Your task to perform on an android device: turn on translation in the chrome app Image 0: 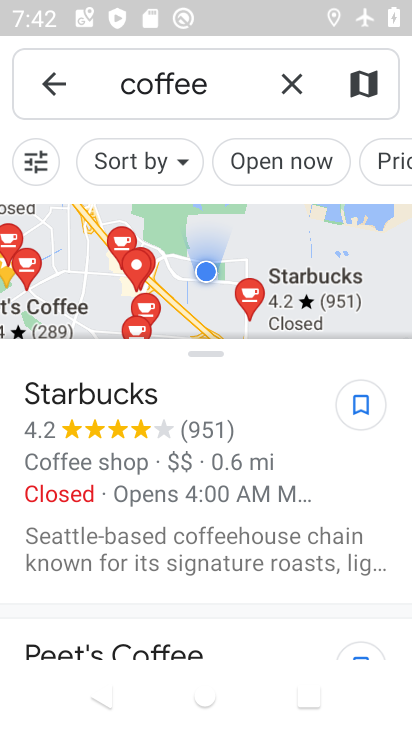
Step 0: press home button
Your task to perform on an android device: turn on translation in the chrome app Image 1: 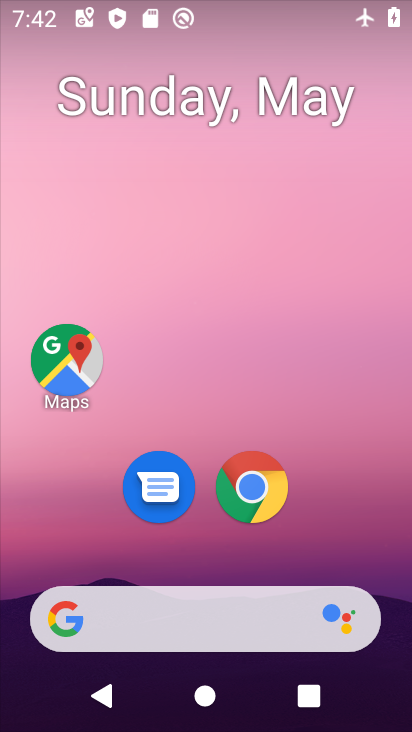
Step 1: drag from (369, 538) to (358, 147)
Your task to perform on an android device: turn on translation in the chrome app Image 2: 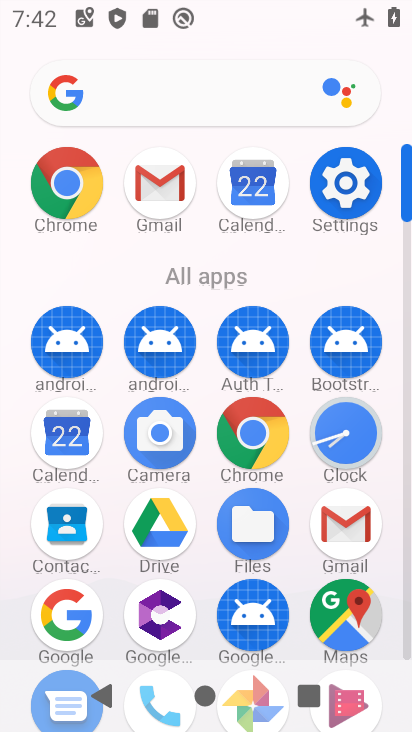
Step 2: click (257, 445)
Your task to perform on an android device: turn on translation in the chrome app Image 3: 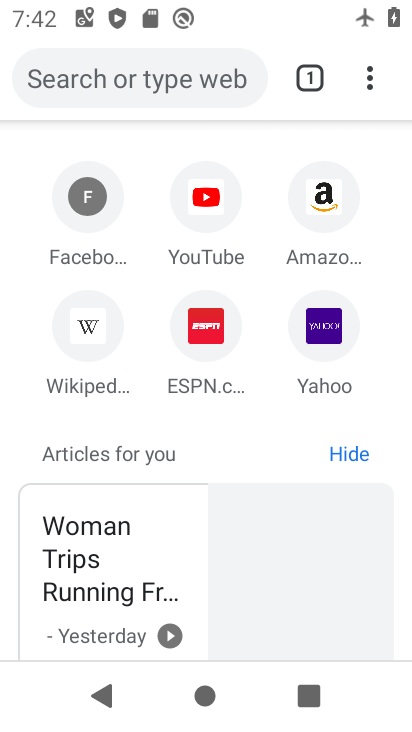
Step 3: click (367, 80)
Your task to perform on an android device: turn on translation in the chrome app Image 4: 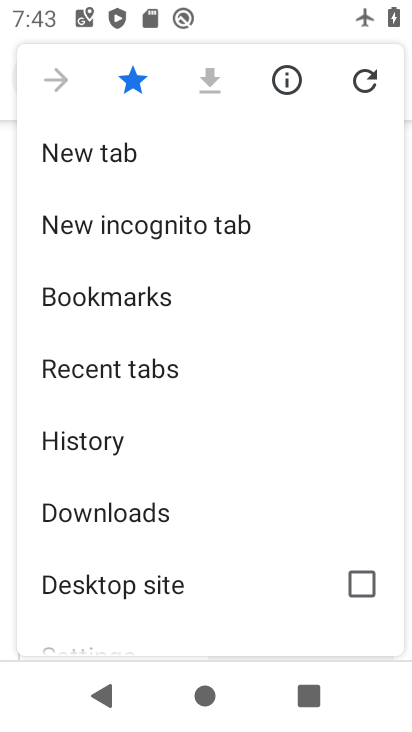
Step 4: drag from (263, 567) to (266, 459)
Your task to perform on an android device: turn on translation in the chrome app Image 5: 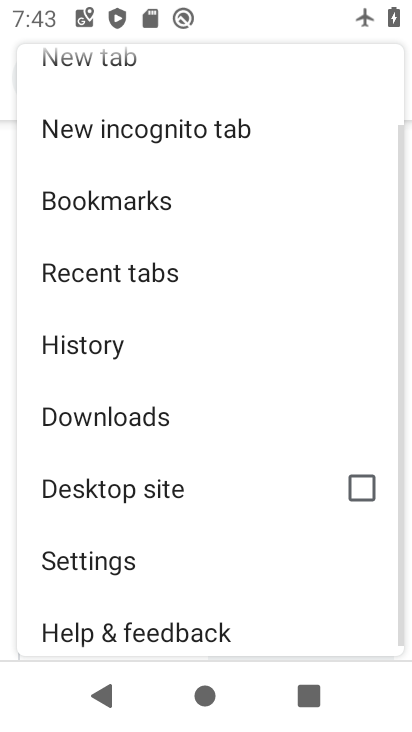
Step 5: drag from (280, 594) to (280, 502)
Your task to perform on an android device: turn on translation in the chrome app Image 6: 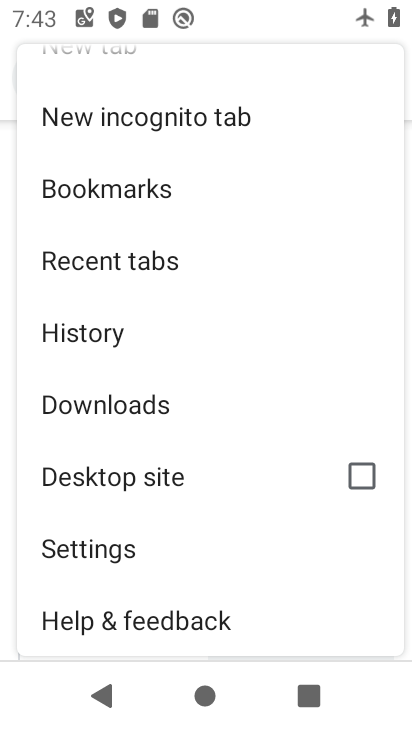
Step 6: click (235, 555)
Your task to perform on an android device: turn on translation in the chrome app Image 7: 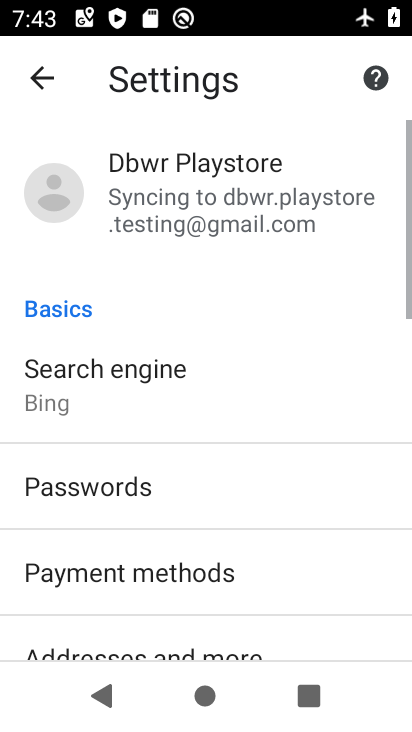
Step 7: drag from (310, 592) to (317, 489)
Your task to perform on an android device: turn on translation in the chrome app Image 8: 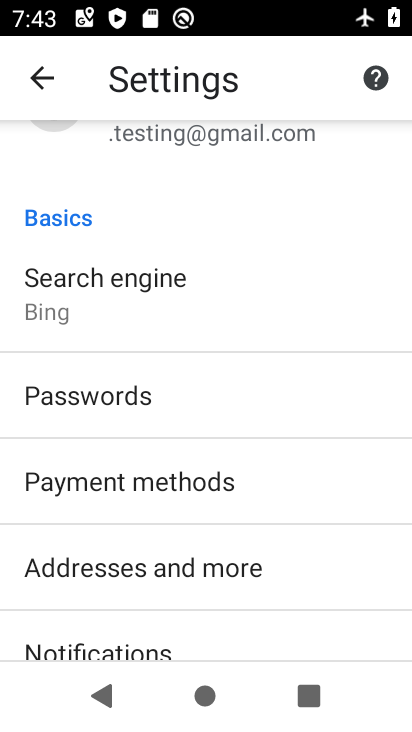
Step 8: drag from (335, 612) to (331, 531)
Your task to perform on an android device: turn on translation in the chrome app Image 9: 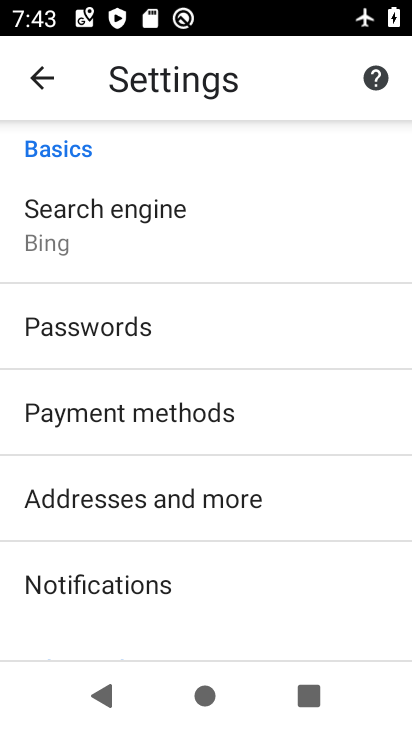
Step 9: drag from (335, 608) to (345, 536)
Your task to perform on an android device: turn on translation in the chrome app Image 10: 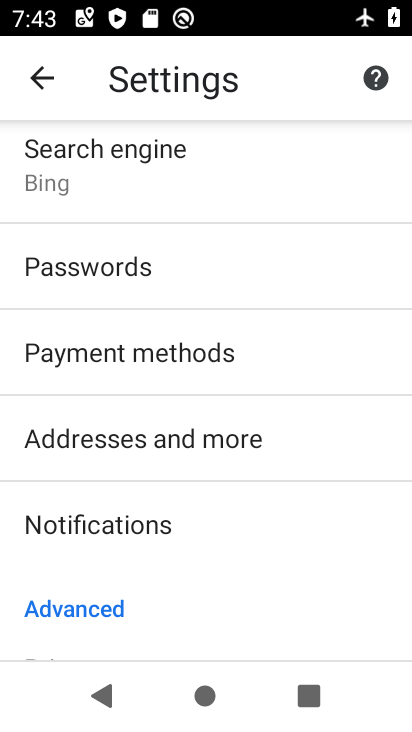
Step 10: drag from (359, 628) to (353, 558)
Your task to perform on an android device: turn on translation in the chrome app Image 11: 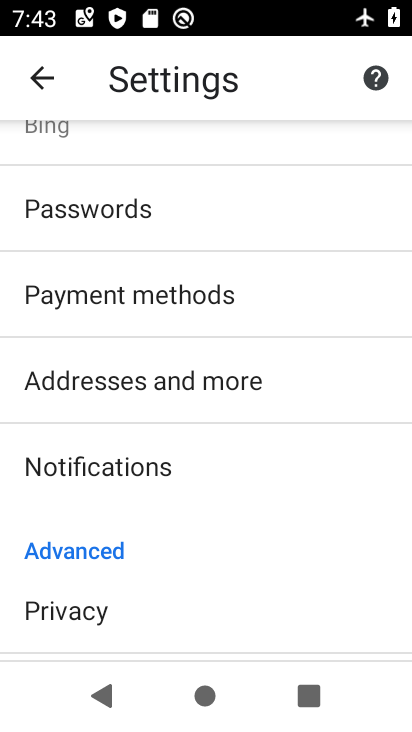
Step 11: drag from (357, 606) to (355, 533)
Your task to perform on an android device: turn on translation in the chrome app Image 12: 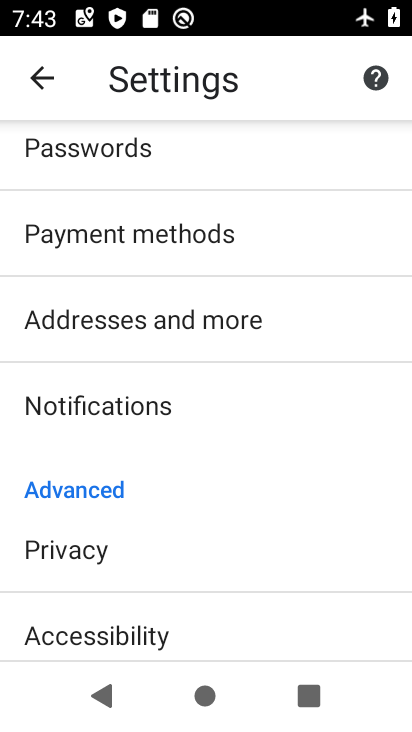
Step 12: drag from (357, 610) to (358, 522)
Your task to perform on an android device: turn on translation in the chrome app Image 13: 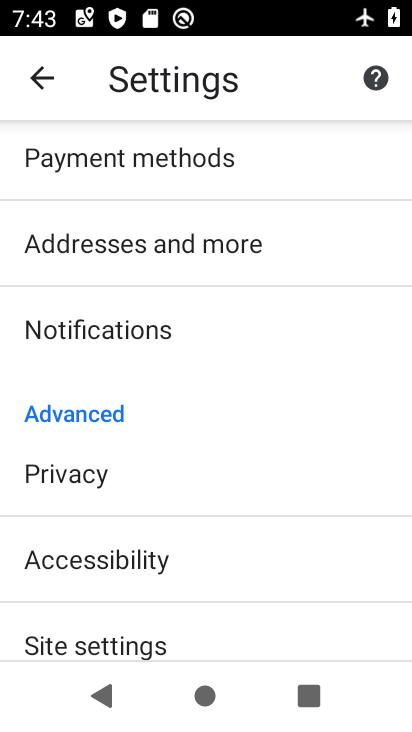
Step 13: drag from (357, 577) to (356, 524)
Your task to perform on an android device: turn on translation in the chrome app Image 14: 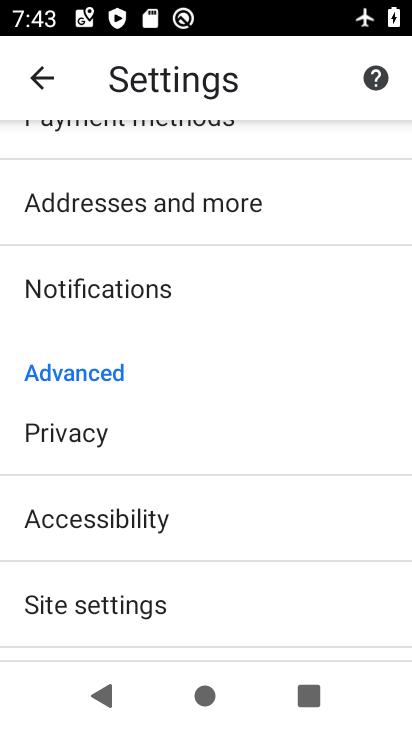
Step 14: drag from (353, 581) to (353, 521)
Your task to perform on an android device: turn on translation in the chrome app Image 15: 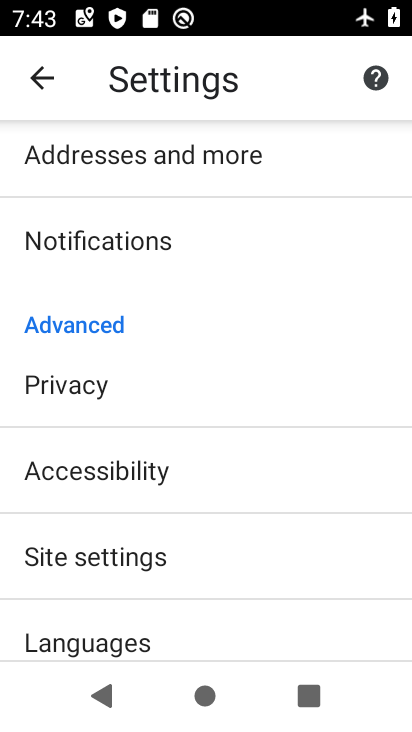
Step 15: drag from (354, 505) to (354, 457)
Your task to perform on an android device: turn on translation in the chrome app Image 16: 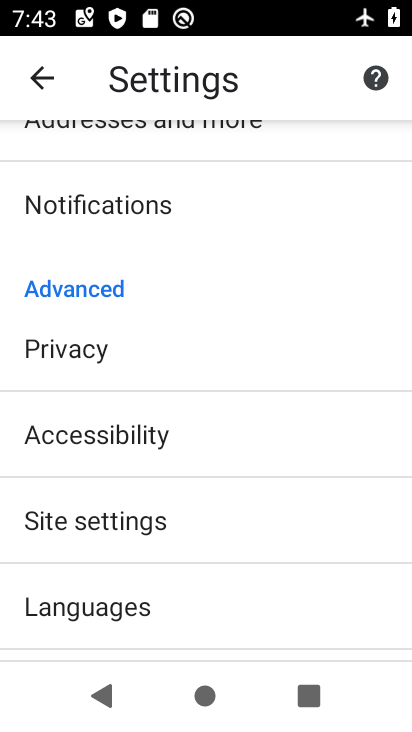
Step 16: drag from (354, 594) to (360, 530)
Your task to perform on an android device: turn on translation in the chrome app Image 17: 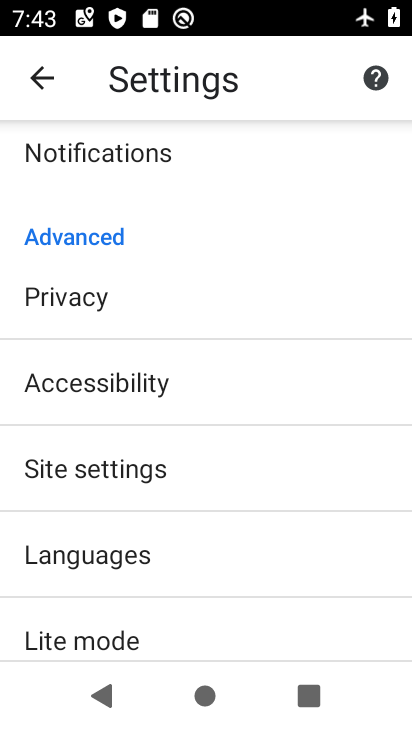
Step 17: drag from (372, 626) to (374, 553)
Your task to perform on an android device: turn on translation in the chrome app Image 18: 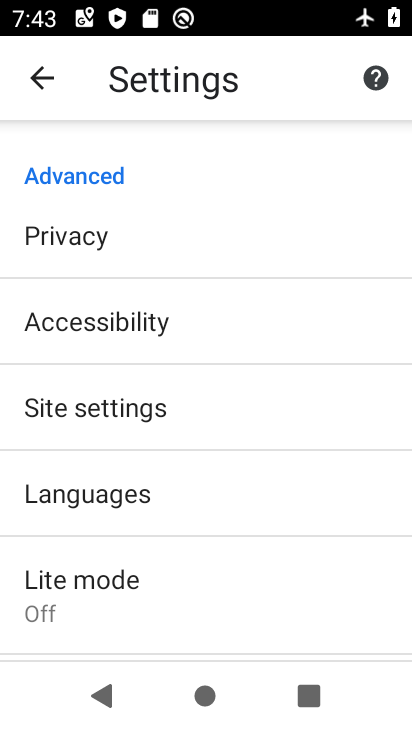
Step 18: click (311, 514)
Your task to perform on an android device: turn on translation in the chrome app Image 19: 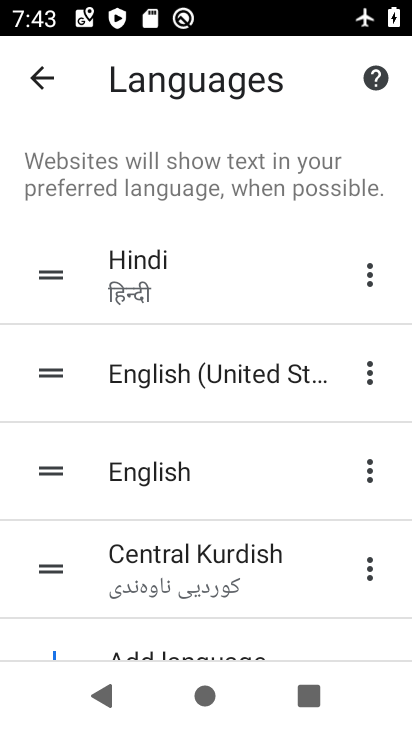
Step 19: drag from (318, 585) to (333, 425)
Your task to perform on an android device: turn on translation in the chrome app Image 20: 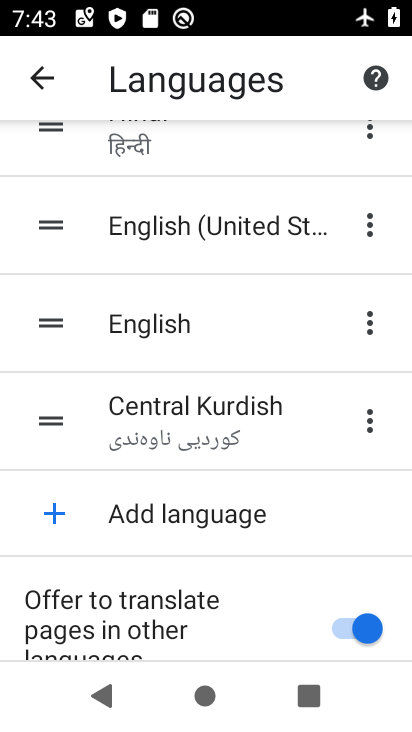
Step 20: drag from (323, 570) to (323, 458)
Your task to perform on an android device: turn on translation in the chrome app Image 21: 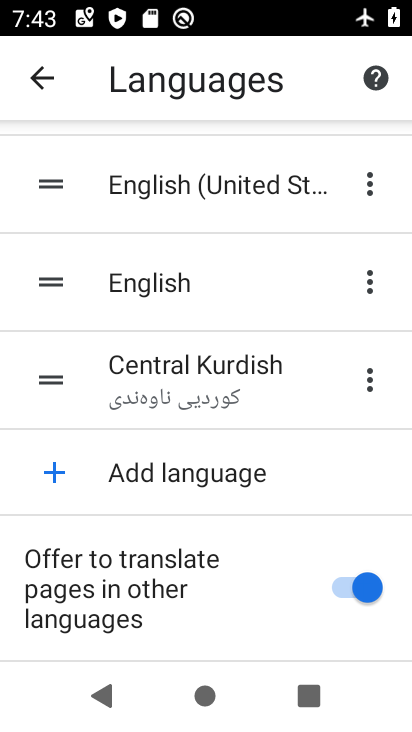
Step 21: click (360, 588)
Your task to perform on an android device: turn on translation in the chrome app Image 22: 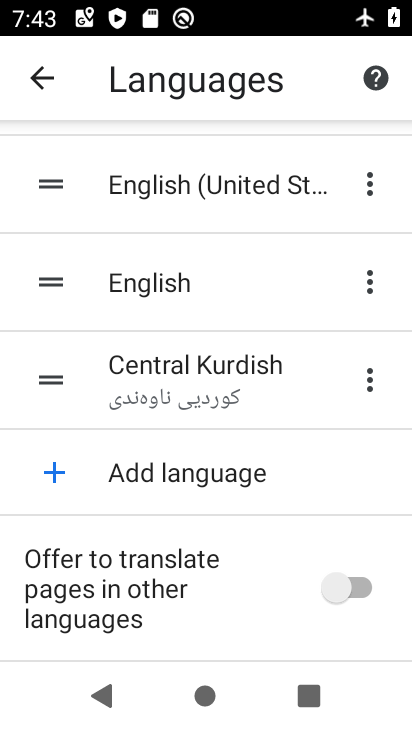
Step 22: task complete